Your task to perform on an android device: Open network settings Image 0: 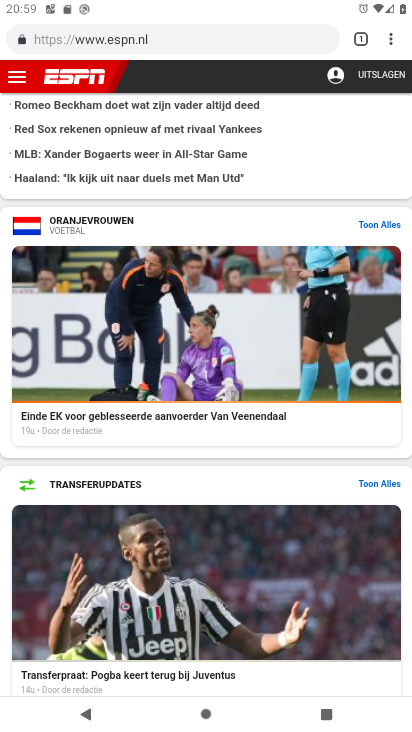
Step 0: press home button
Your task to perform on an android device: Open network settings Image 1: 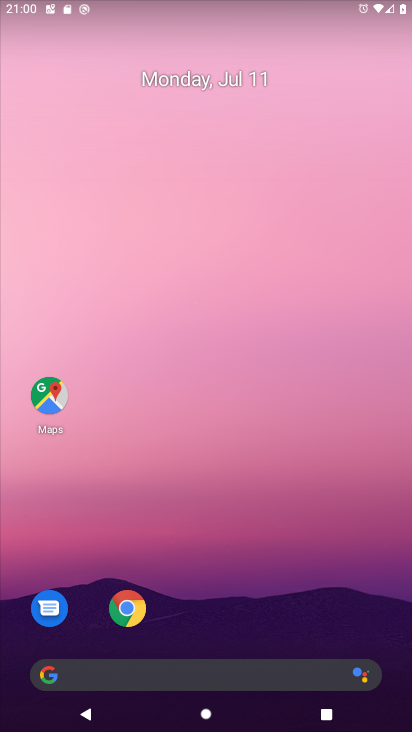
Step 1: drag from (302, 571) to (245, 142)
Your task to perform on an android device: Open network settings Image 2: 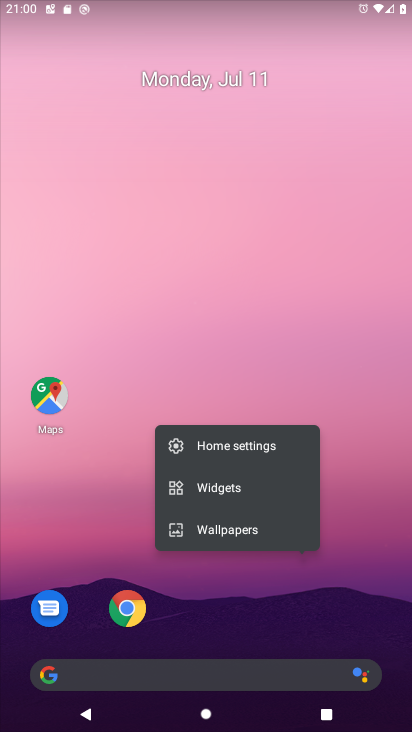
Step 2: click (213, 228)
Your task to perform on an android device: Open network settings Image 3: 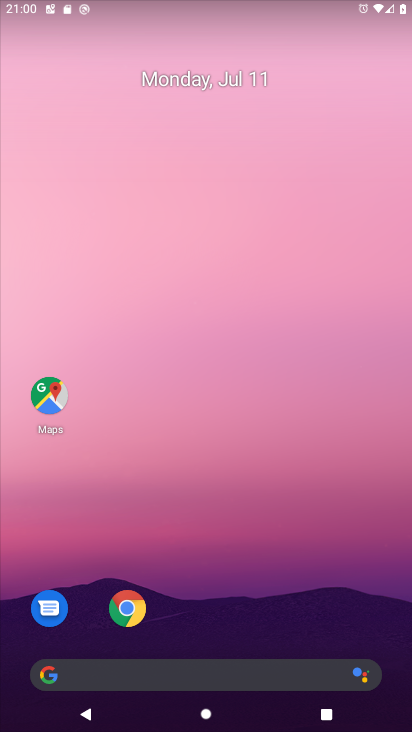
Step 3: drag from (278, 617) to (250, 121)
Your task to perform on an android device: Open network settings Image 4: 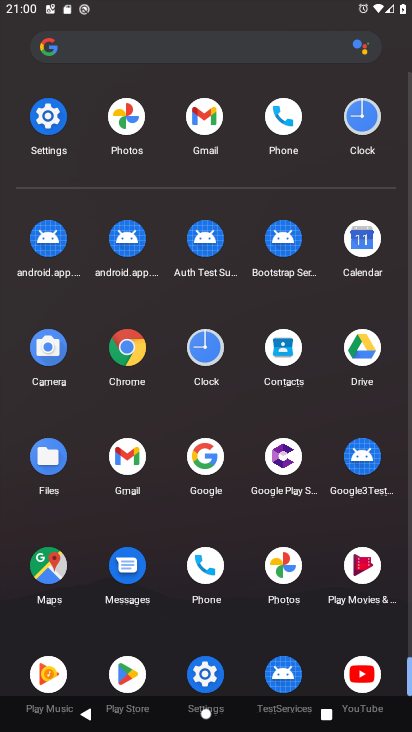
Step 4: click (52, 130)
Your task to perform on an android device: Open network settings Image 5: 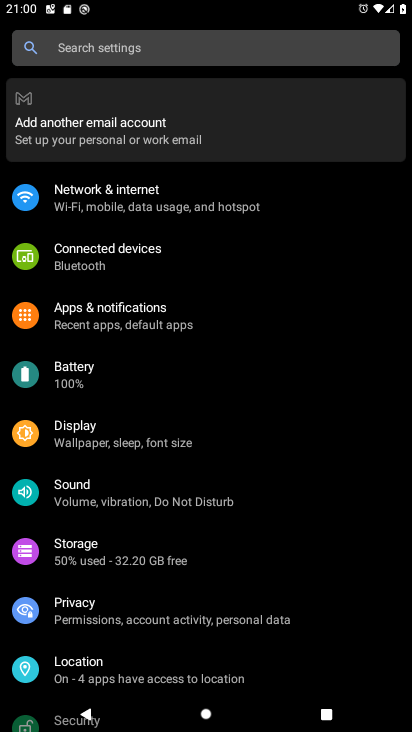
Step 5: click (97, 208)
Your task to perform on an android device: Open network settings Image 6: 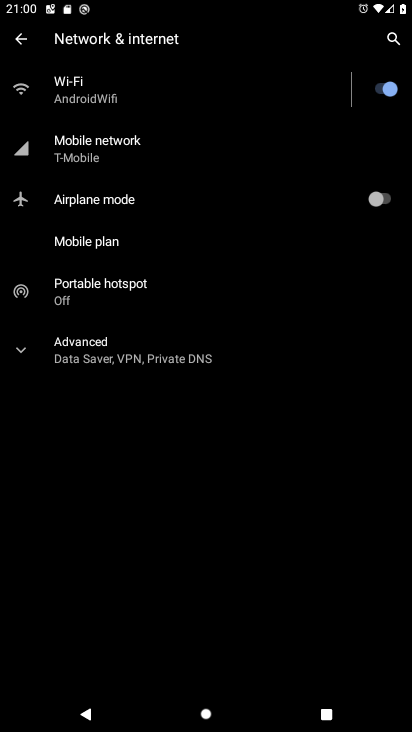
Step 6: click (134, 169)
Your task to perform on an android device: Open network settings Image 7: 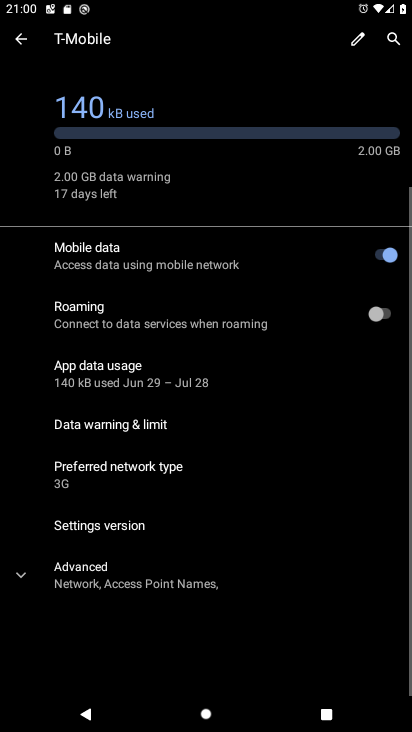
Step 7: task complete